Your task to perform on an android device: Open calendar and show me the fourth week of next month Image 0: 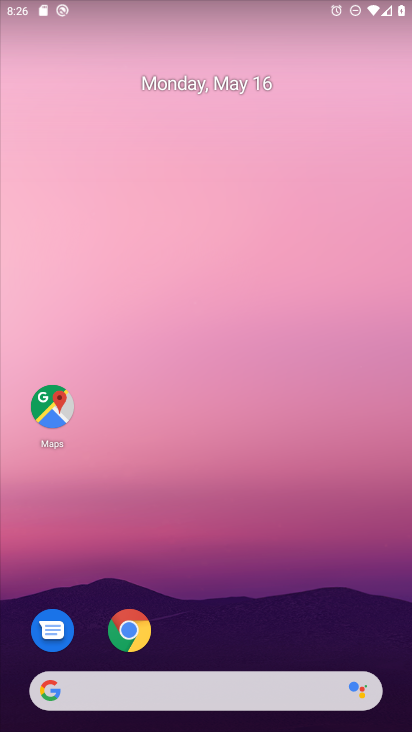
Step 0: drag from (285, 536) to (260, 95)
Your task to perform on an android device: Open calendar and show me the fourth week of next month Image 1: 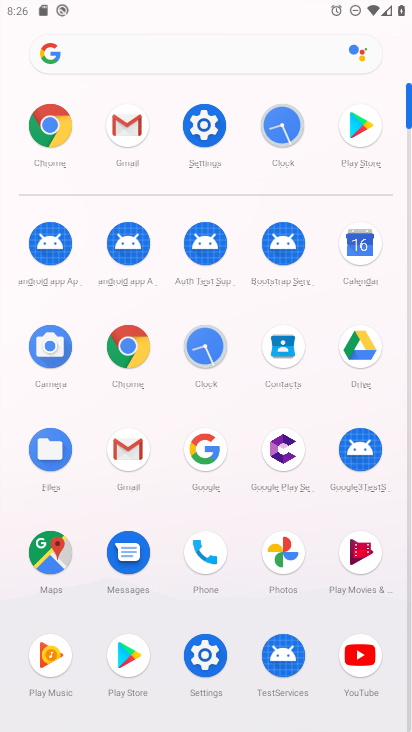
Step 1: click (363, 253)
Your task to perform on an android device: Open calendar and show me the fourth week of next month Image 2: 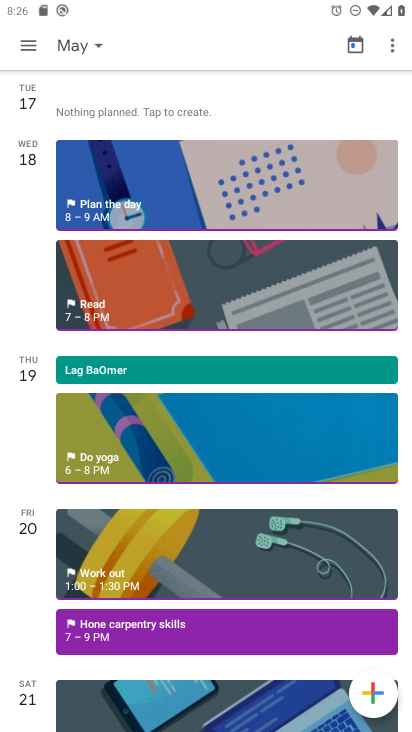
Step 2: click (37, 39)
Your task to perform on an android device: Open calendar and show me the fourth week of next month Image 3: 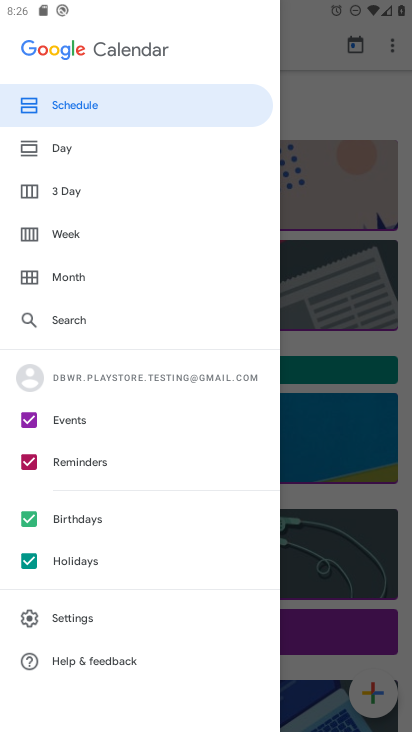
Step 3: click (110, 280)
Your task to perform on an android device: Open calendar and show me the fourth week of next month Image 4: 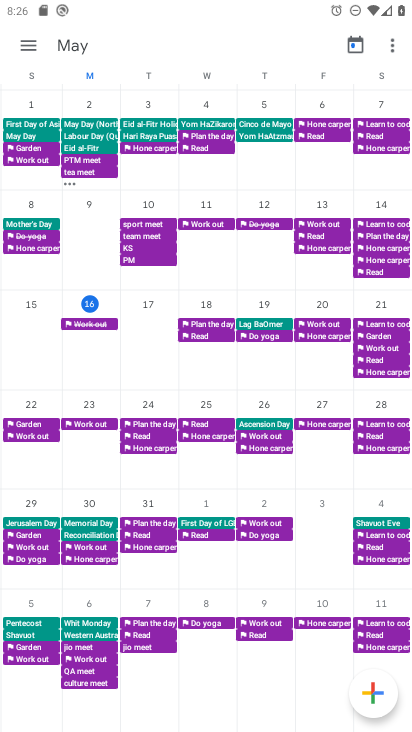
Step 4: task complete